Your task to perform on an android device: uninstall "Indeed Job Search" Image 0: 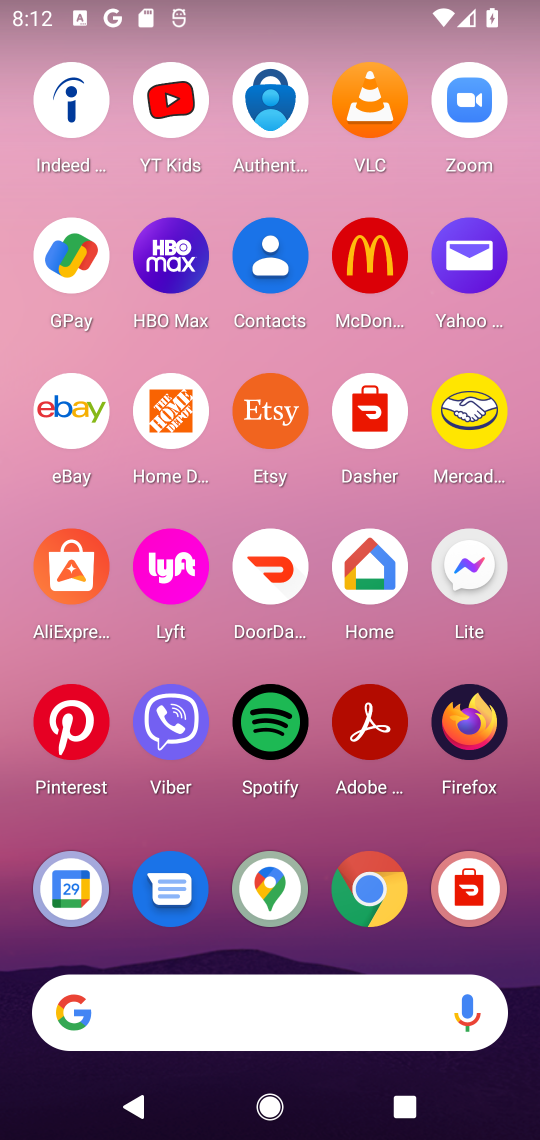
Step 0: press home button
Your task to perform on an android device: uninstall "Indeed Job Search" Image 1: 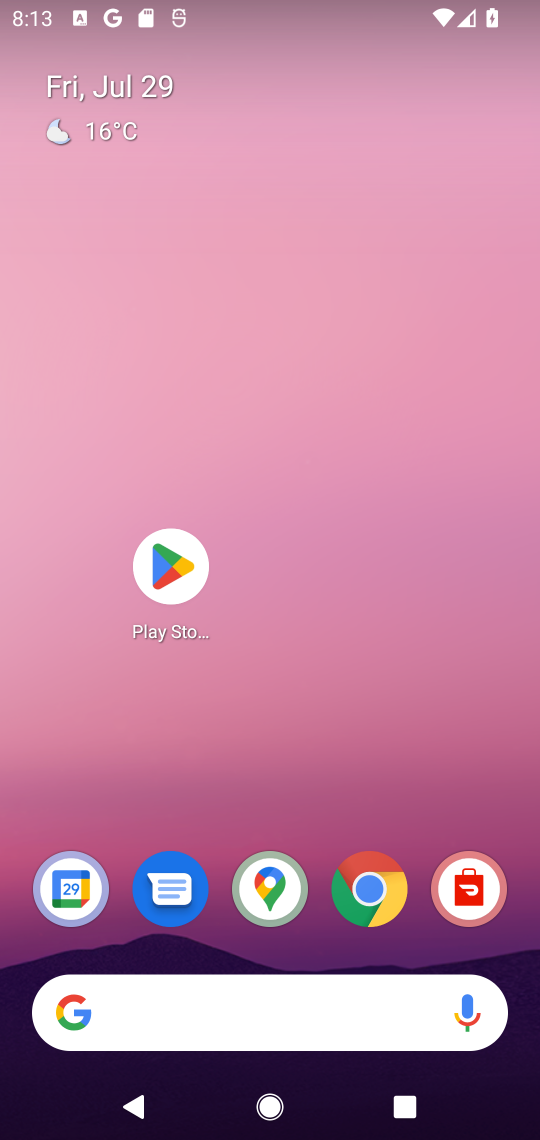
Step 1: click (158, 581)
Your task to perform on an android device: uninstall "Indeed Job Search" Image 2: 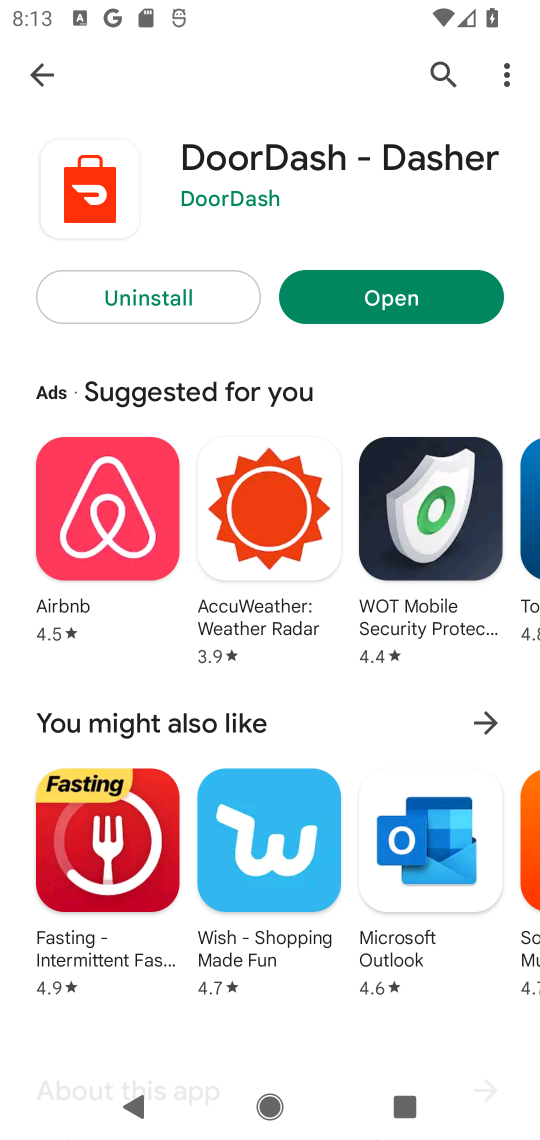
Step 2: click (435, 68)
Your task to perform on an android device: uninstall "Indeed Job Search" Image 3: 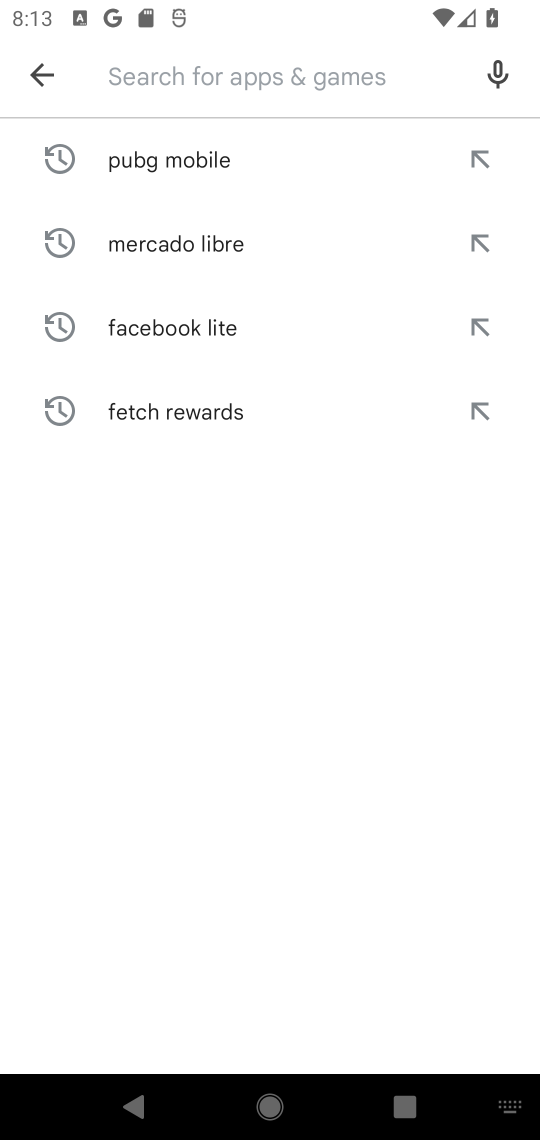
Step 3: type "Indeed Job Search"
Your task to perform on an android device: uninstall "Indeed Job Search" Image 4: 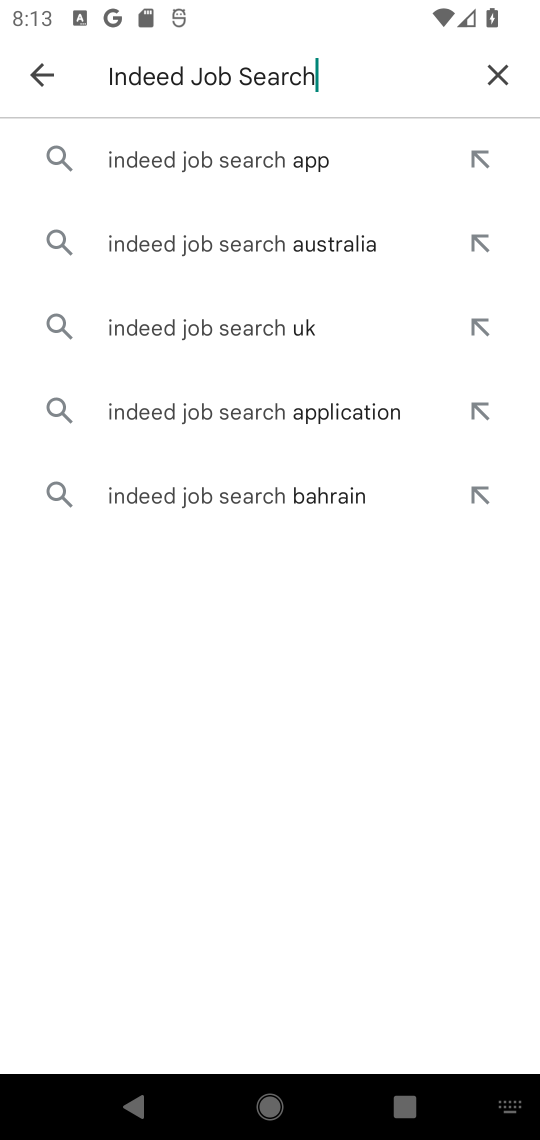
Step 4: click (284, 156)
Your task to perform on an android device: uninstall "Indeed Job Search" Image 5: 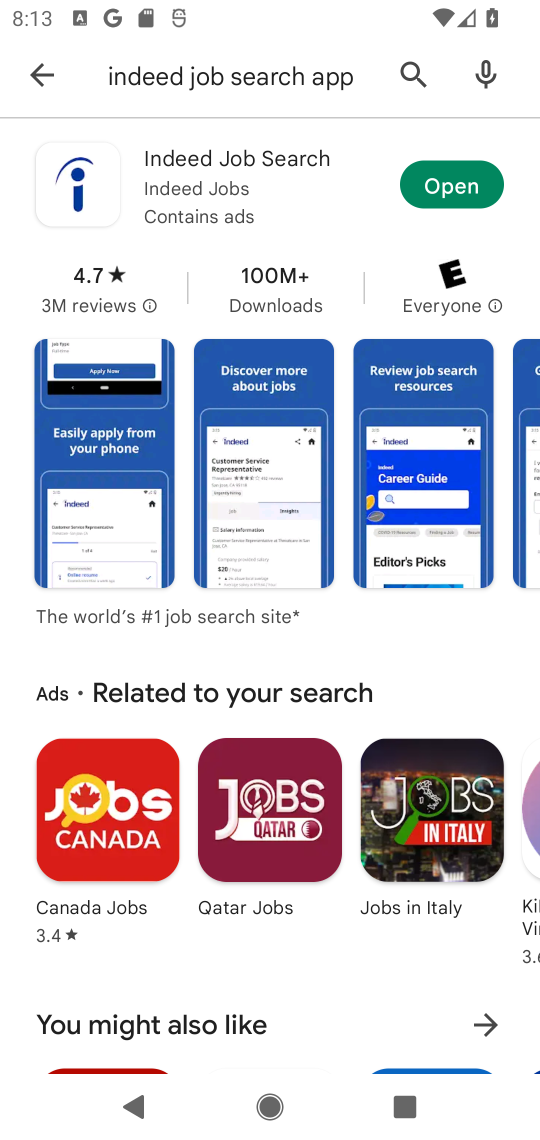
Step 5: click (80, 190)
Your task to perform on an android device: uninstall "Indeed Job Search" Image 6: 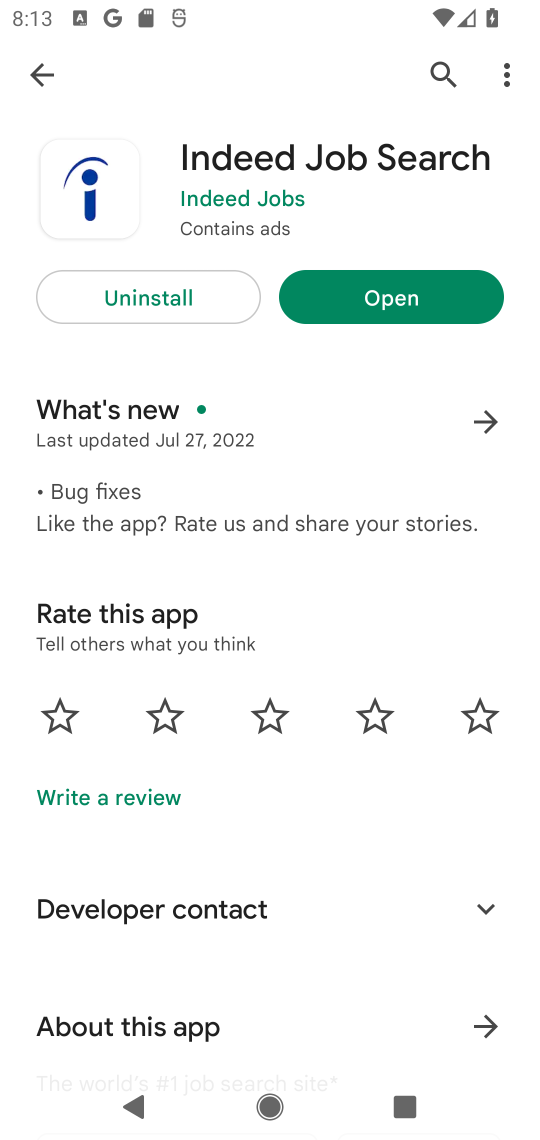
Step 6: click (153, 294)
Your task to perform on an android device: uninstall "Indeed Job Search" Image 7: 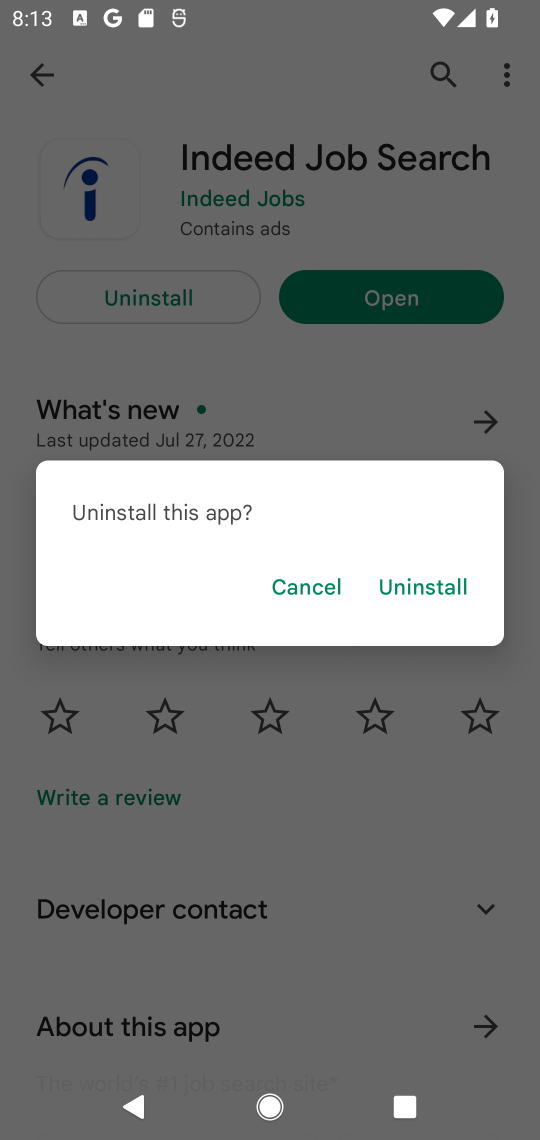
Step 7: click (409, 589)
Your task to perform on an android device: uninstall "Indeed Job Search" Image 8: 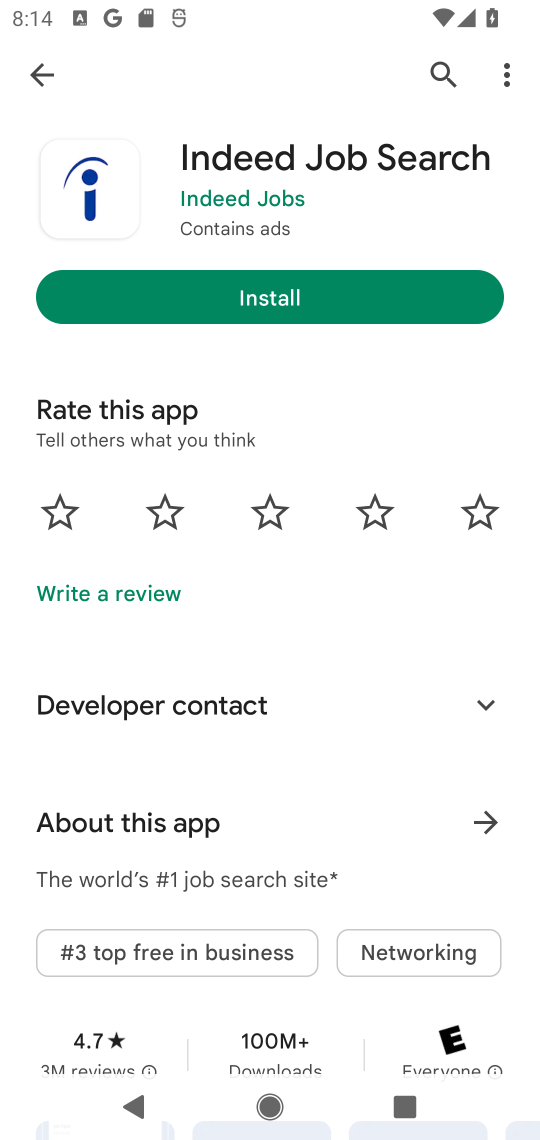
Step 8: task complete